Your task to perform on an android device: stop showing notifications on the lock screen Image 0: 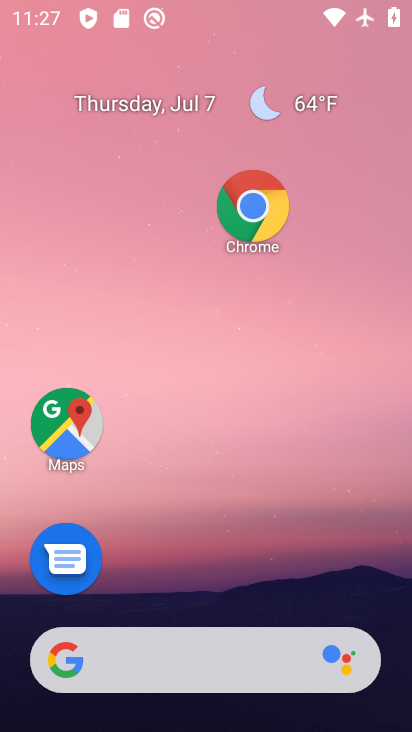
Step 0: press home button
Your task to perform on an android device: stop showing notifications on the lock screen Image 1: 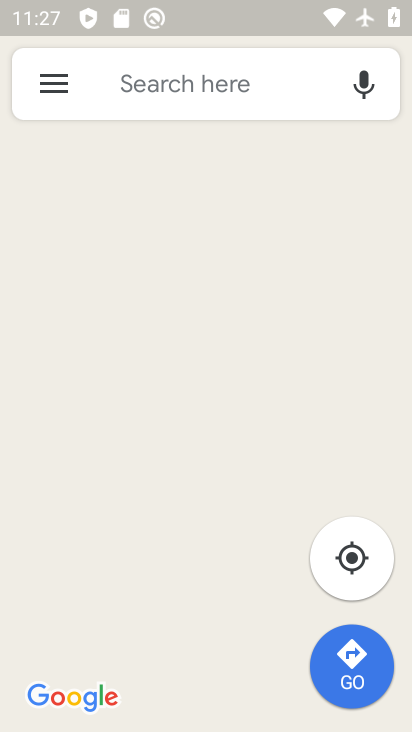
Step 1: drag from (199, 636) to (163, 311)
Your task to perform on an android device: stop showing notifications on the lock screen Image 2: 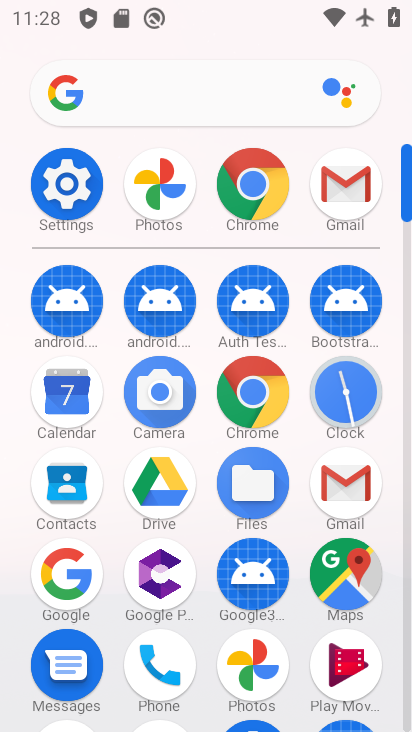
Step 2: drag from (302, 675) to (302, 280)
Your task to perform on an android device: stop showing notifications on the lock screen Image 3: 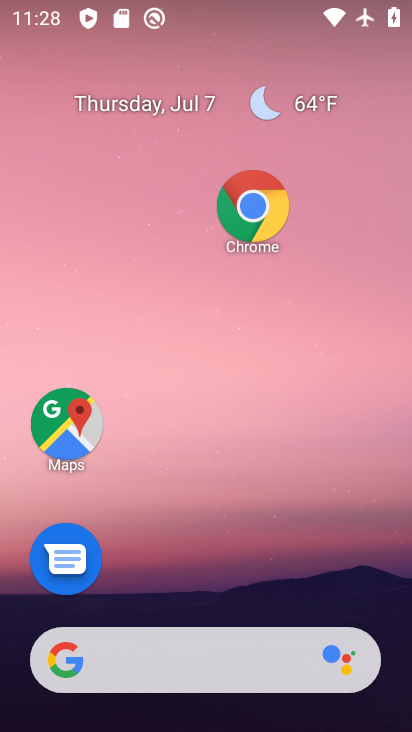
Step 3: drag from (177, 622) to (177, 298)
Your task to perform on an android device: stop showing notifications on the lock screen Image 4: 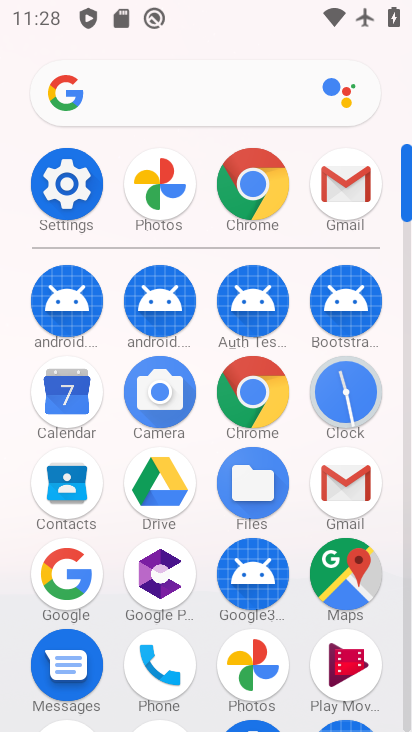
Step 4: click (69, 186)
Your task to perform on an android device: stop showing notifications on the lock screen Image 5: 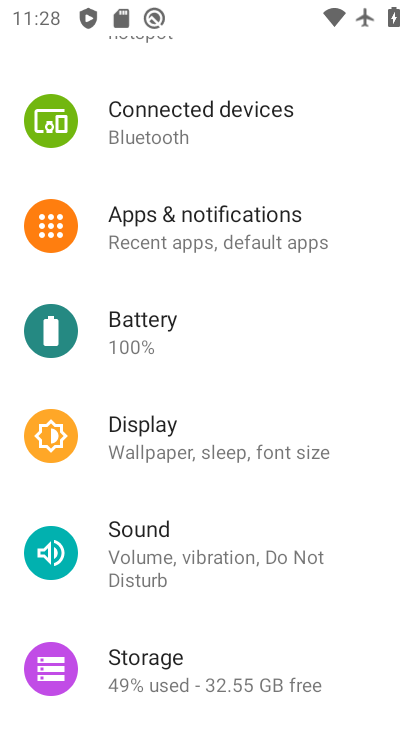
Step 5: drag from (150, 706) to (158, 362)
Your task to perform on an android device: stop showing notifications on the lock screen Image 6: 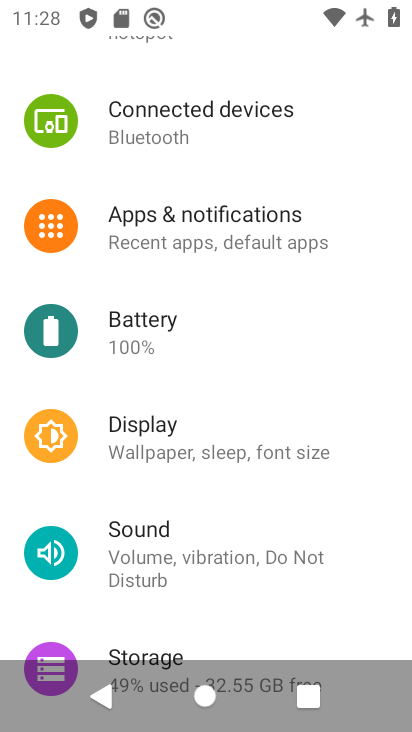
Step 6: drag from (193, 595) to (207, 238)
Your task to perform on an android device: stop showing notifications on the lock screen Image 7: 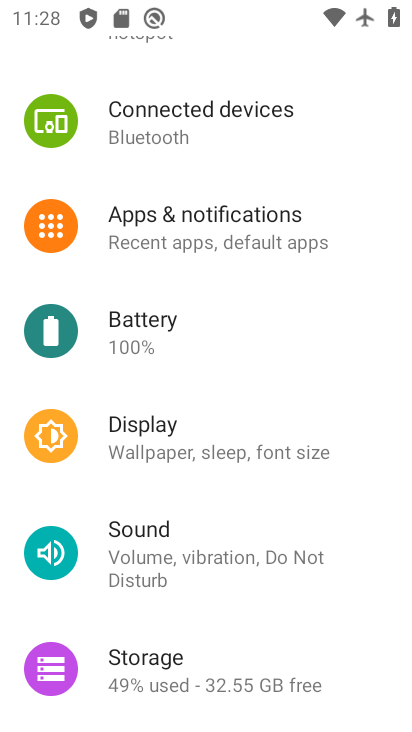
Step 7: drag from (154, 662) to (154, 289)
Your task to perform on an android device: stop showing notifications on the lock screen Image 8: 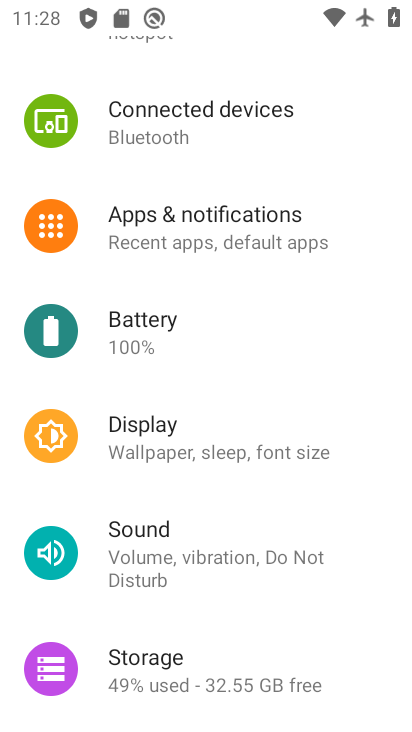
Step 8: drag from (192, 671) to (193, 248)
Your task to perform on an android device: stop showing notifications on the lock screen Image 9: 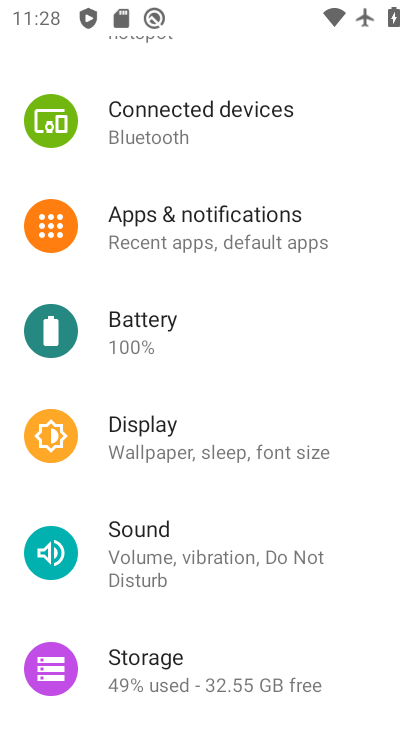
Step 9: drag from (199, 518) to (228, 196)
Your task to perform on an android device: stop showing notifications on the lock screen Image 10: 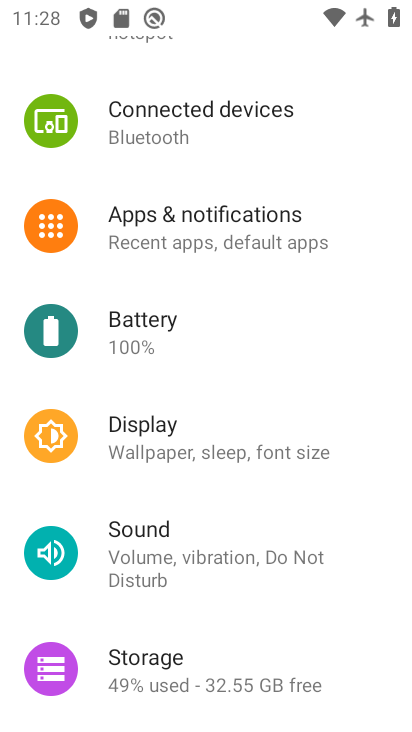
Step 10: drag from (196, 580) to (244, 58)
Your task to perform on an android device: stop showing notifications on the lock screen Image 11: 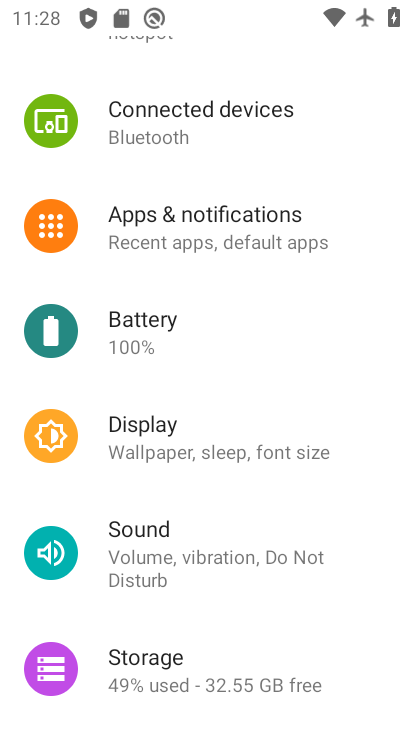
Step 11: click (205, 219)
Your task to perform on an android device: stop showing notifications on the lock screen Image 12: 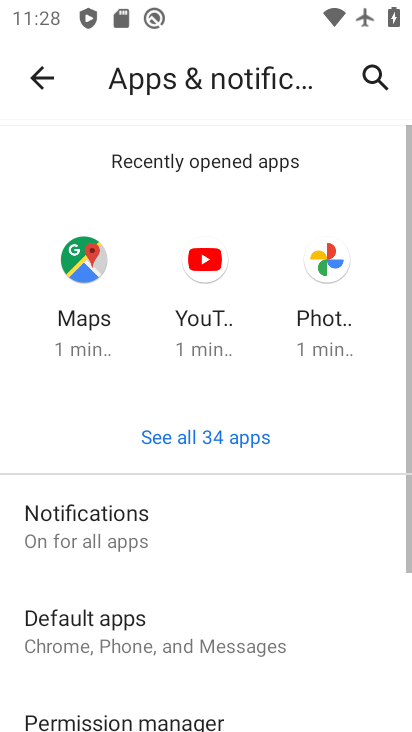
Step 12: click (93, 545)
Your task to perform on an android device: stop showing notifications on the lock screen Image 13: 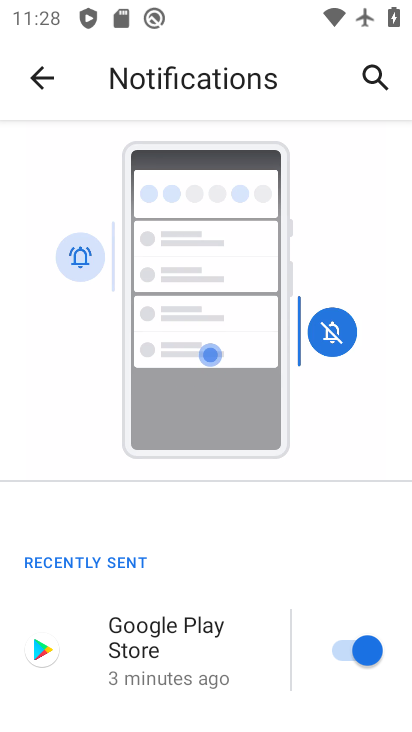
Step 13: drag from (124, 681) to (132, 292)
Your task to perform on an android device: stop showing notifications on the lock screen Image 14: 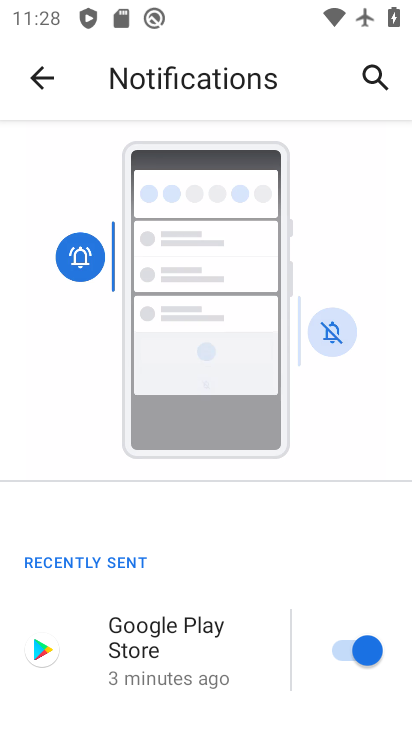
Step 14: drag from (331, 545) to (367, 118)
Your task to perform on an android device: stop showing notifications on the lock screen Image 15: 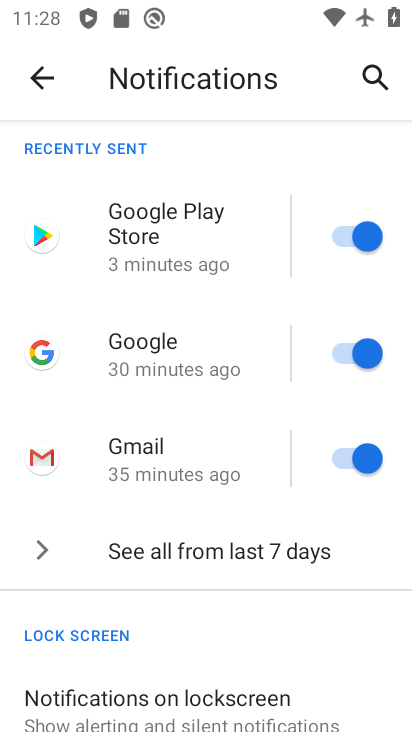
Step 15: click (211, 706)
Your task to perform on an android device: stop showing notifications on the lock screen Image 16: 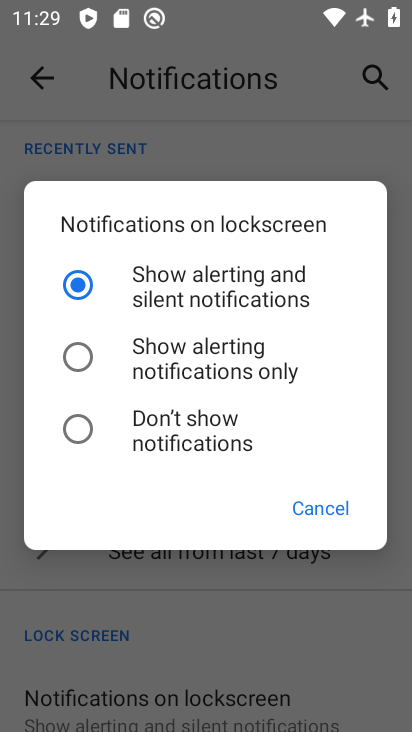
Step 16: click (174, 441)
Your task to perform on an android device: stop showing notifications on the lock screen Image 17: 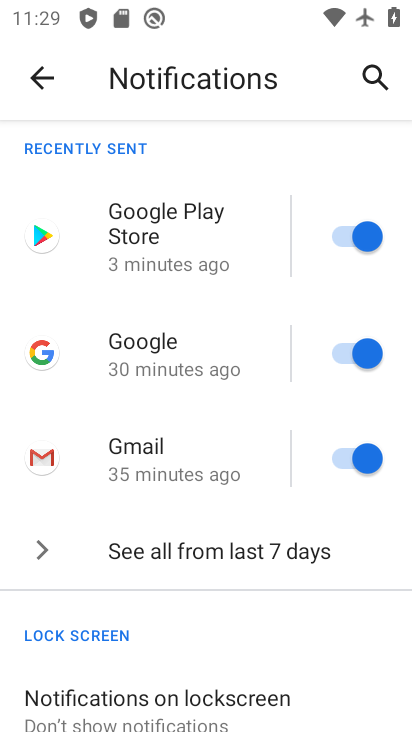
Step 17: task complete